Your task to perform on an android device: read, delete, or share a saved page in the chrome app Image 0: 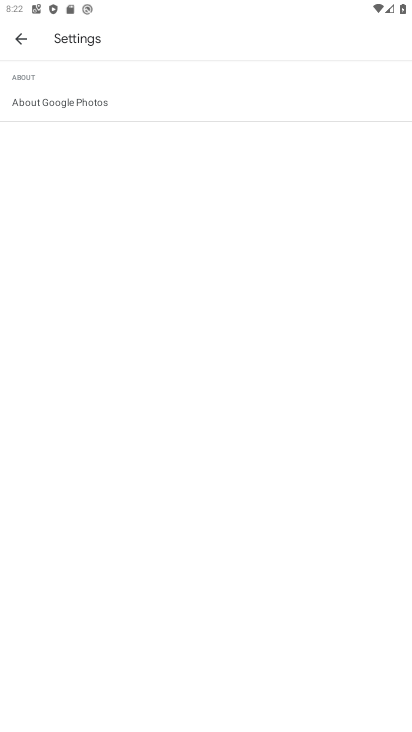
Step 0: press home button
Your task to perform on an android device: read, delete, or share a saved page in the chrome app Image 1: 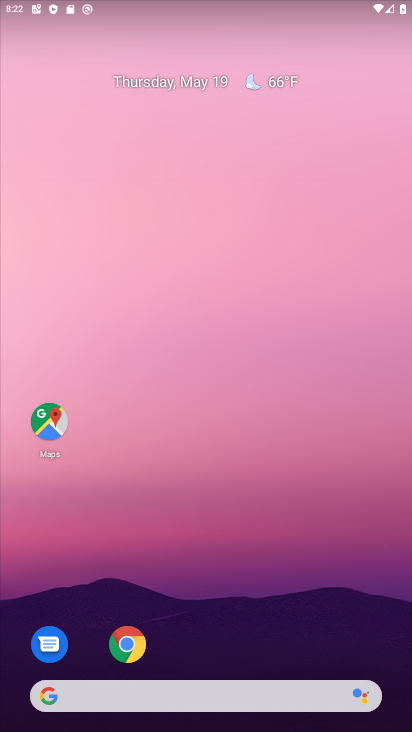
Step 1: drag from (360, 614) to (349, 169)
Your task to perform on an android device: read, delete, or share a saved page in the chrome app Image 2: 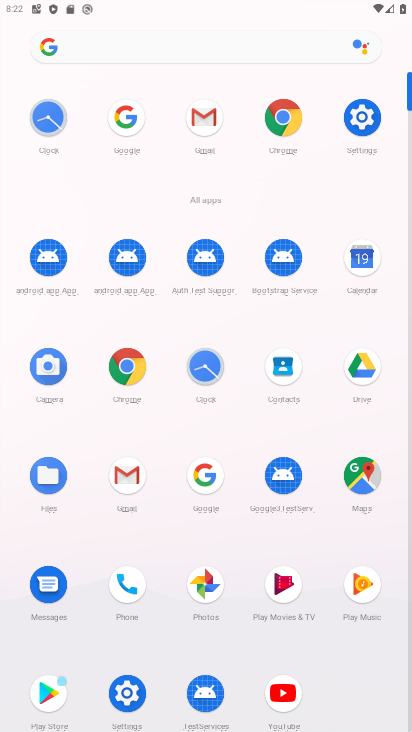
Step 2: click (137, 365)
Your task to perform on an android device: read, delete, or share a saved page in the chrome app Image 3: 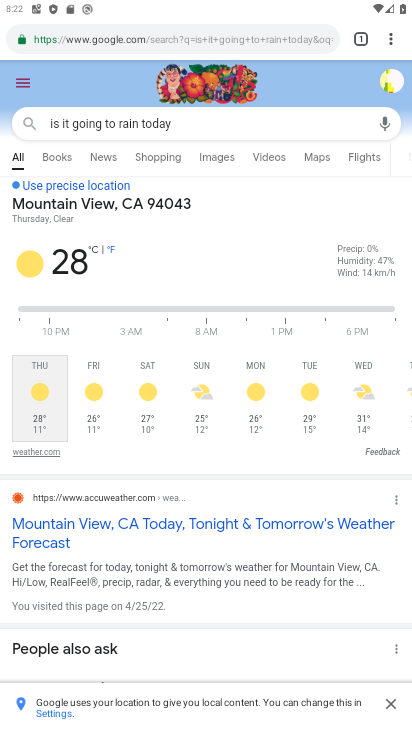
Step 3: drag from (394, 35) to (299, 152)
Your task to perform on an android device: read, delete, or share a saved page in the chrome app Image 4: 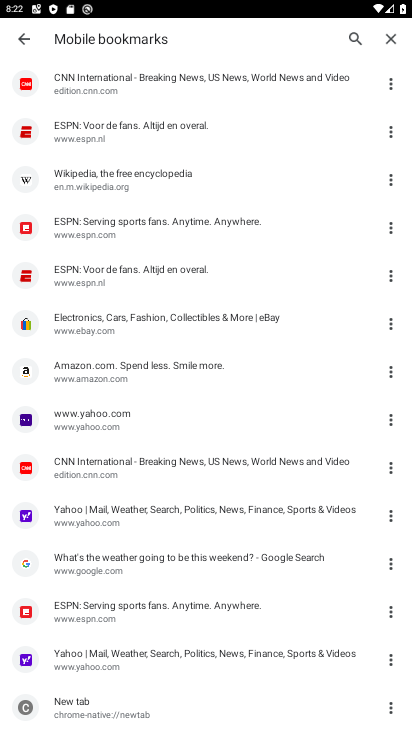
Step 4: click (388, 87)
Your task to perform on an android device: read, delete, or share a saved page in the chrome app Image 5: 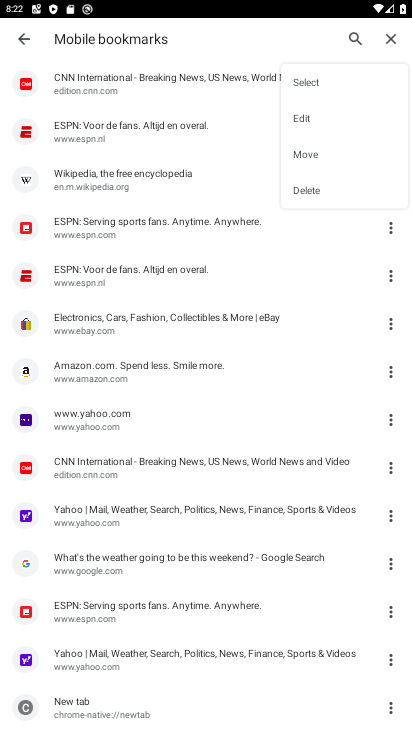
Step 5: click (303, 192)
Your task to perform on an android device: read, delete, or share a saved page in the chrome app Image 6: 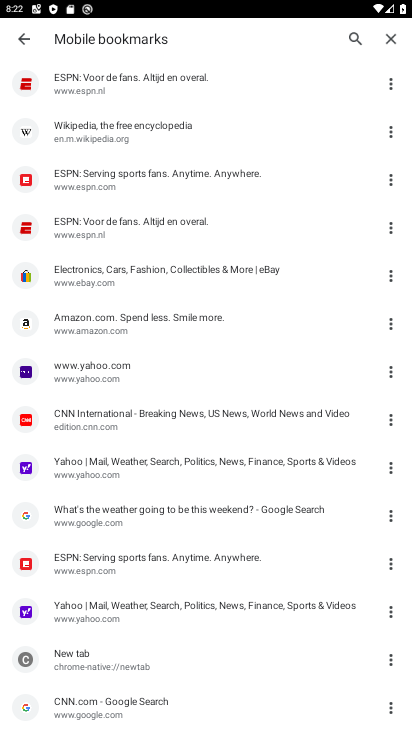
Step 6: task complete